Your task to perform on an android device: turn on location history Image 0: 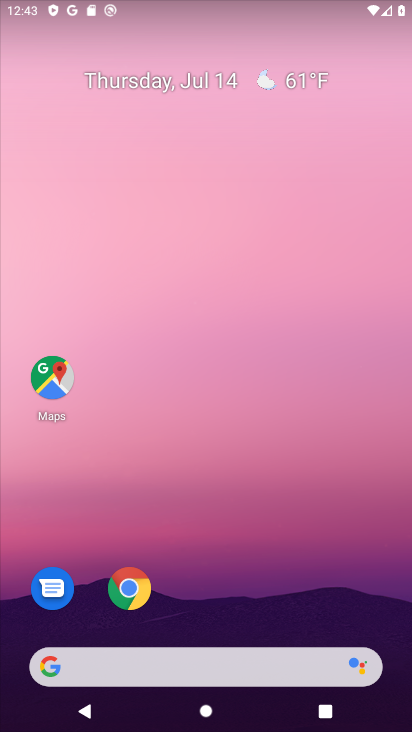
Step 0: drag from (225, 550) to (234, 25)
Your task to perform on an android device: turn on location history Image 1: 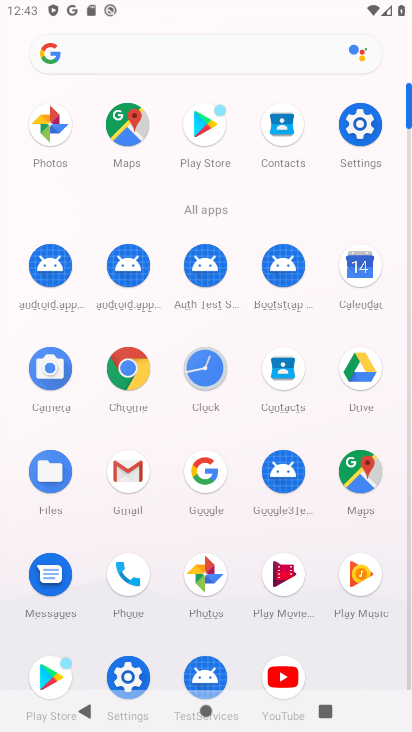
Step 1: click (360, 148)
Your task to perform on an android device: turn on location history Image 2: 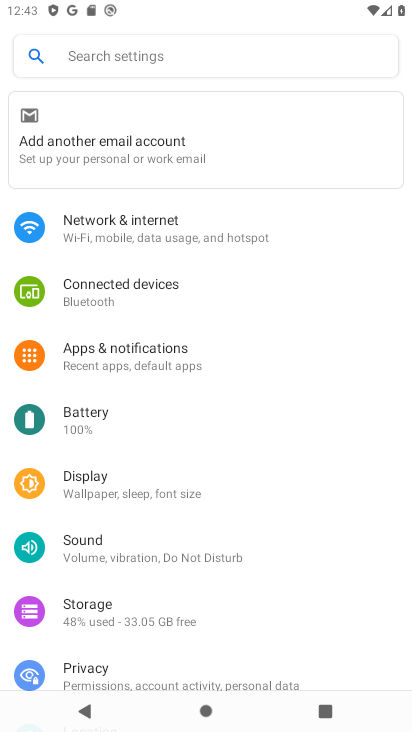
Step 2: drag from (110, 557) to (146, 403)
Your task to perform on an android device: turn on location history Image 3: 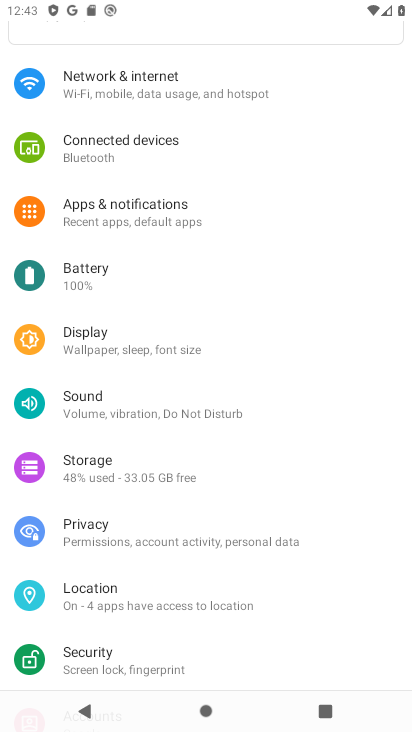
Step 3: click (101, 607)
Your task to perform on an android device: turn on location history Image 4: 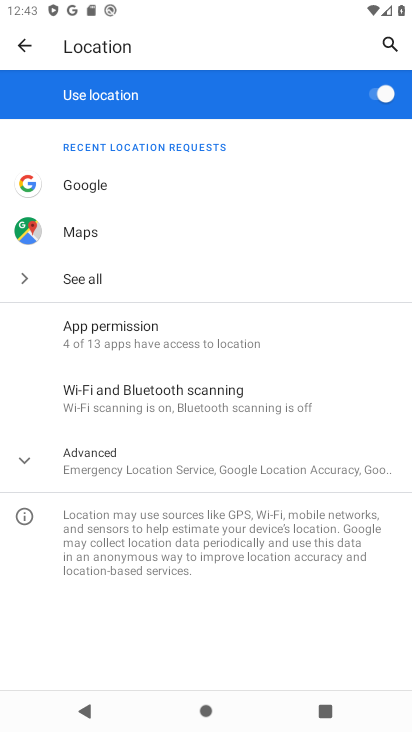
Step 4: click (166, 472)
Your task to perform on an android device: turn on location history Image 5: 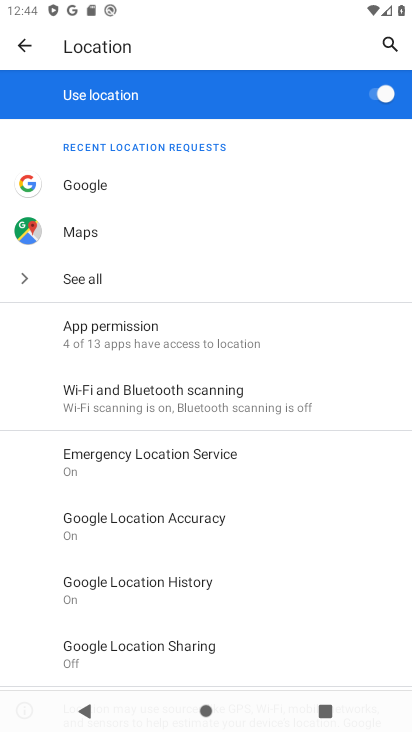
Step 5: click (172, 595)
Your task to perform on an android device: turn on location history Image 6: 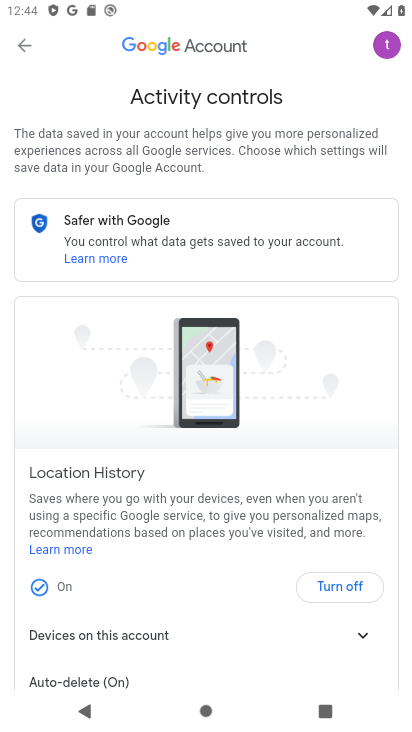
Step 6: task complete